Your task to perform on an android device: Open CNN.com Image 0: 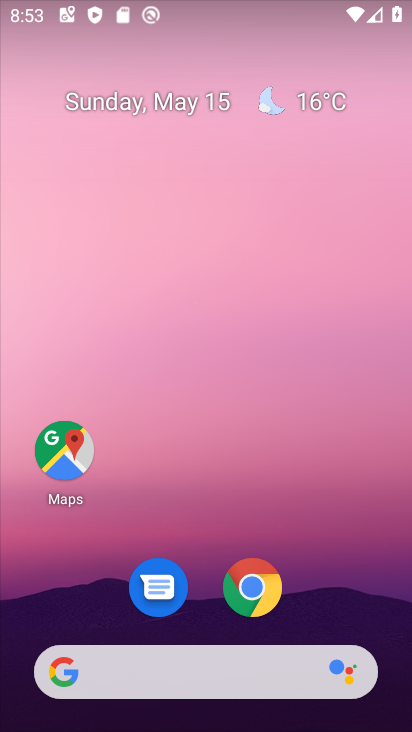
Step 0: click (254, 594)
Your task to perform on an android device: Open CNN.com Image 1: 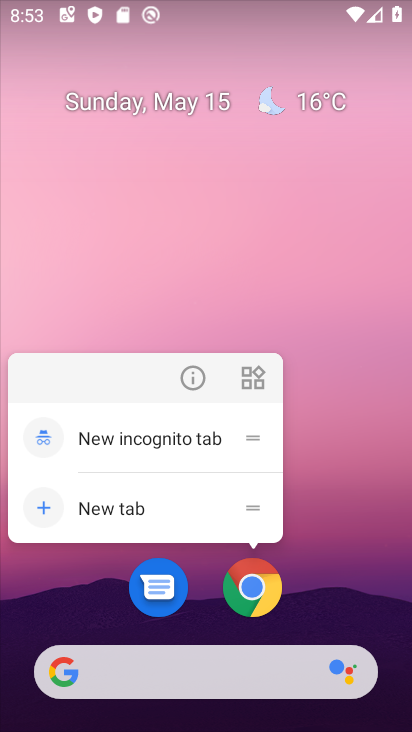
Step 1: click (250, 596)
Your task to perform on an android device: Open CNN.com Image 2: 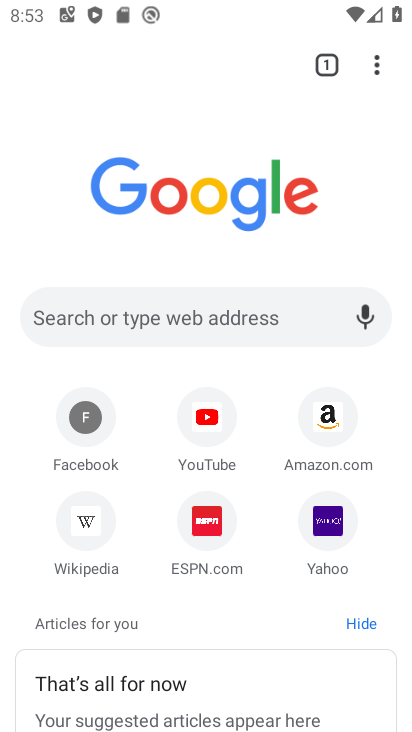
Step 2: click (260, 308)
Your task to perform on an android device: Open CNN.com Image 3: 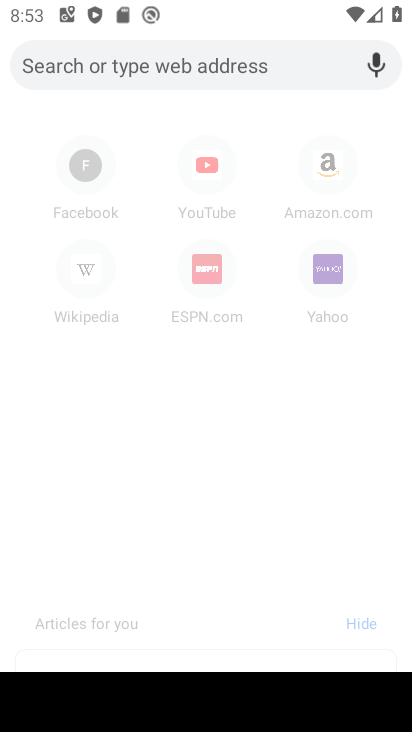
Step 3: type "cnn.com"
Your task to perform on an android device: Open CNN.com Image 4: 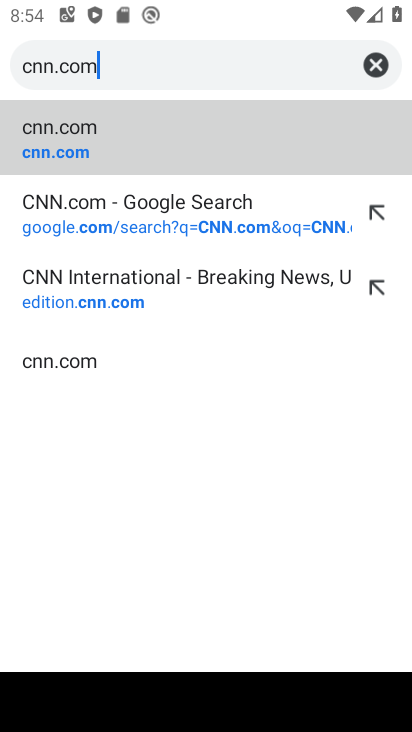
Step 4: click (57, 160)
Your task to perform on an android device: Open CNN.com Image 5: 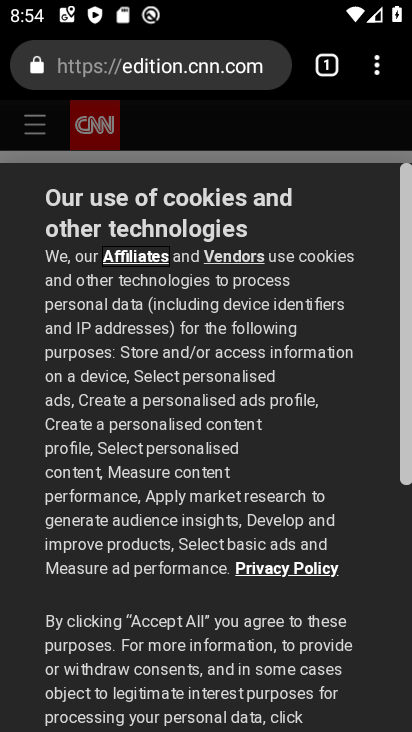
Step 5: task complete